Your task to perform on an android device: open wifi settings Image 0: 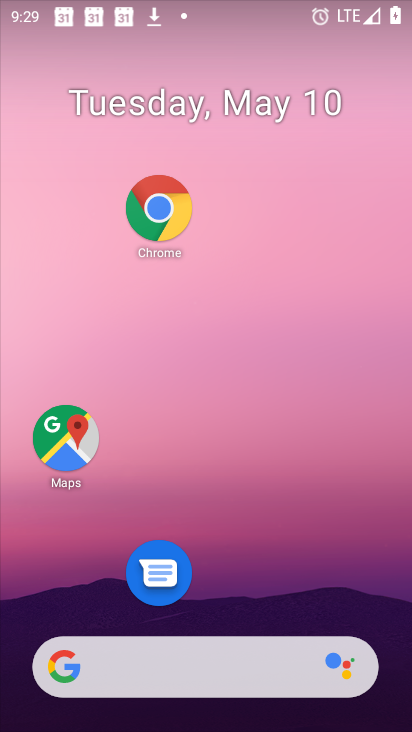
Step 0: press home button
Your task to perform on an android device: open wifi settings Image 1: 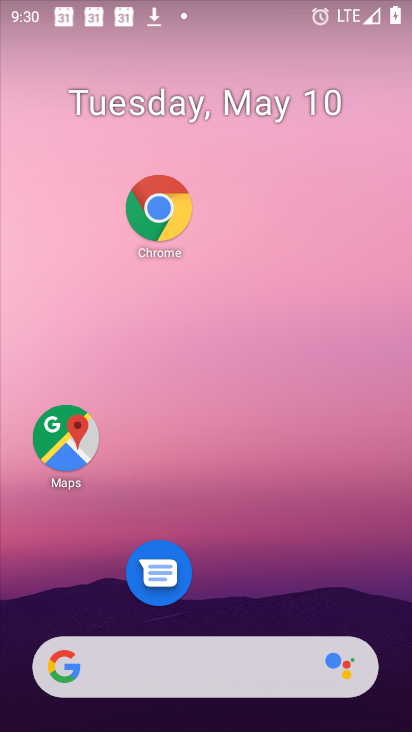
Step 1: drag from (285, 707) to (411, 59)
Your task to perform on an android device: open wifi settings Image 2: 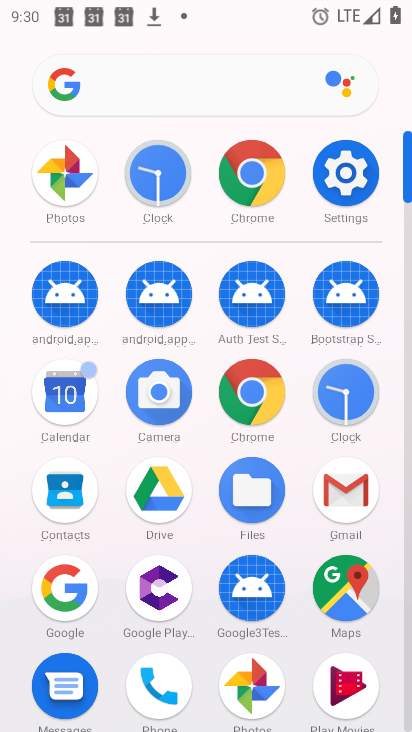
Step 2: click (349, 161)
Your task to perform on an android device: open wifi settings Image 3: 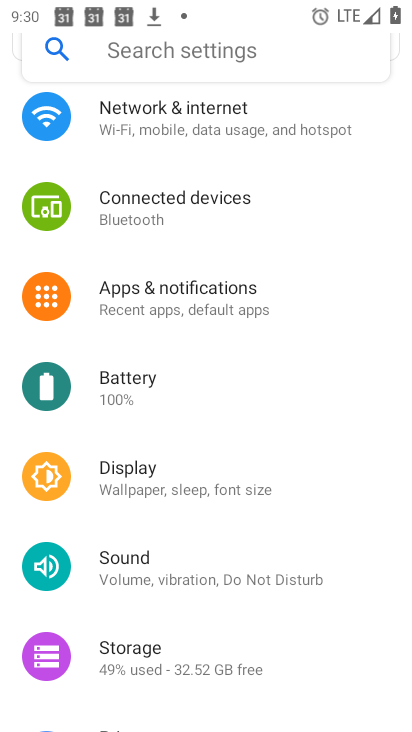
Step 3: click (188, 133)
Your task to perform on an android device: open wifi settings Image 4: 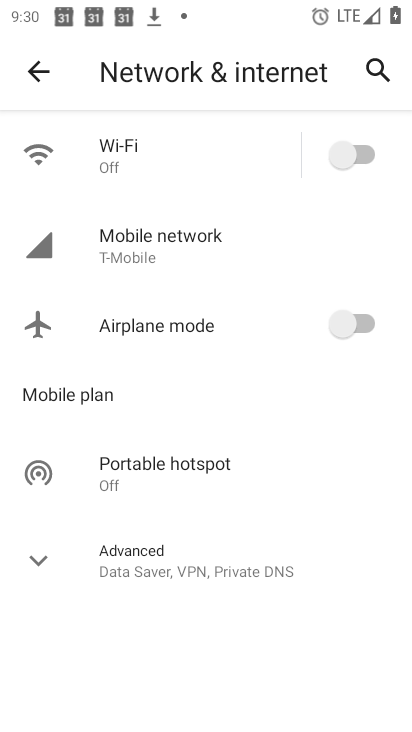
Step 4: task complete